Your task to perform on an android device: check google app version Image 0: 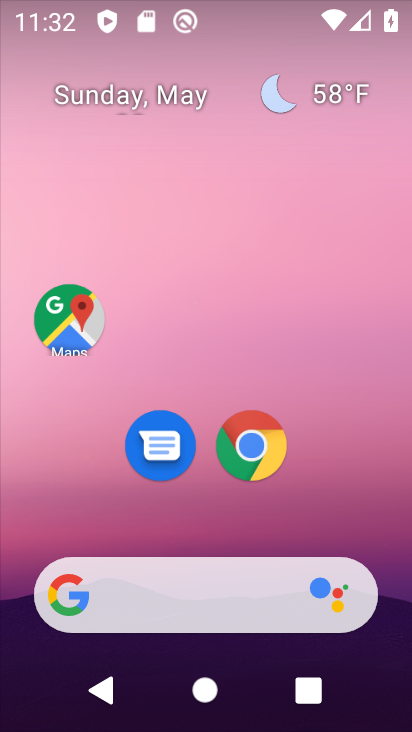
Step 0: drag from (228, 413) to (249, 8)
Your task to perform on an android device: check google app version Image 1: 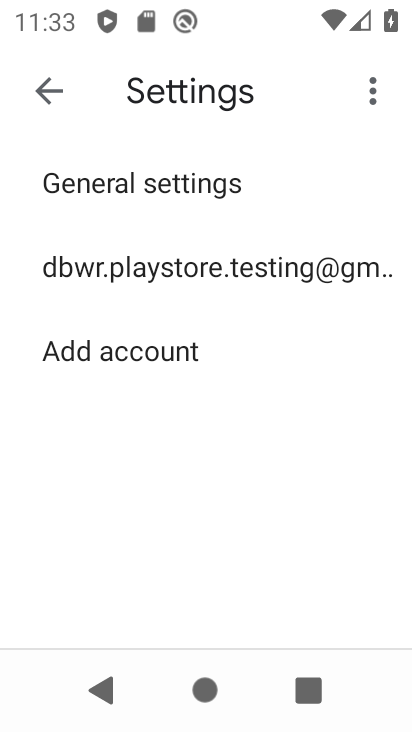
Step 1: press home button
Your task to perform on an android device: check google app version Image 2: 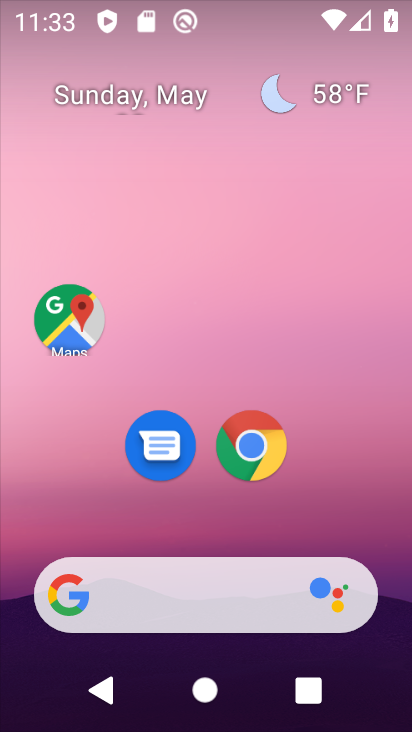
Step 2: drag from (199, 548) to (224, 19)
Your task to perform on an android device: check google app version Image 3: 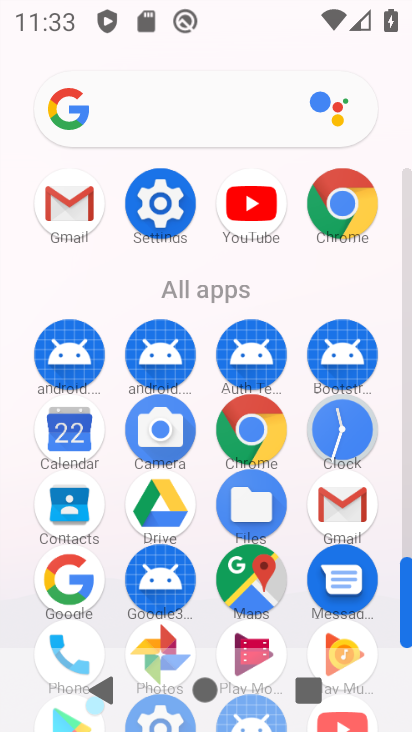
Step 3: drag from (197, 619) to (277, 32)
Your task to perform on an android device: check google app version Image 4: 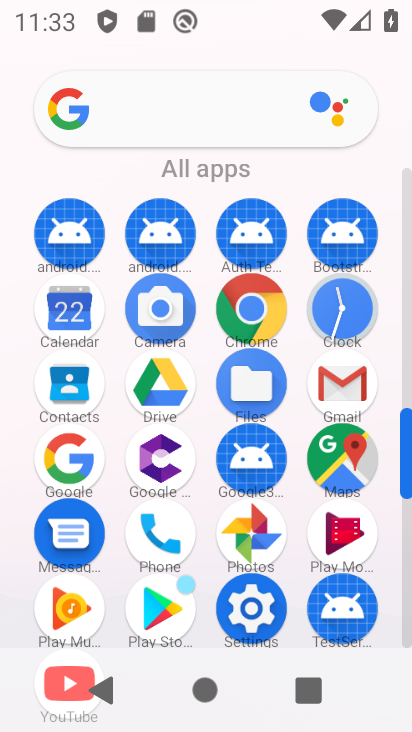
Step 4: click (75, 459)
Your task to perform on an android device: check google app version Image 5: 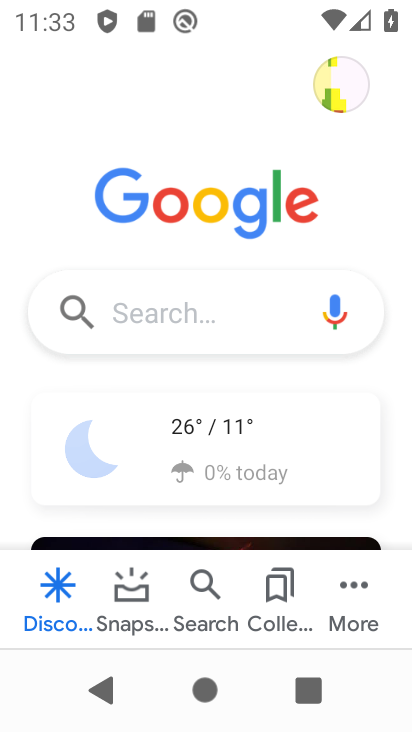
Step 5: click (346, 606)
Your task to perform on an android device: check google app version Image 6: 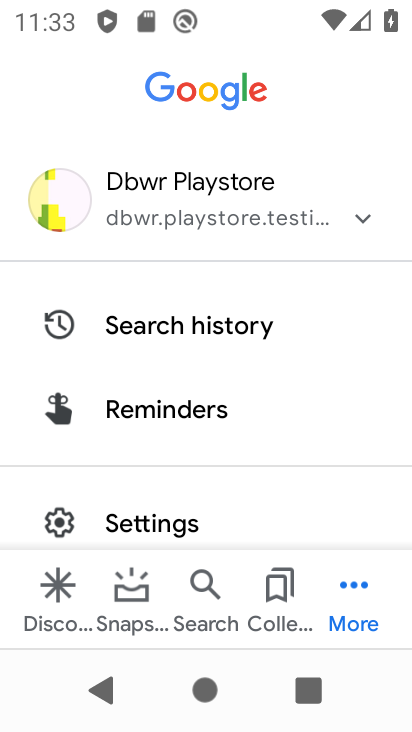
Step 6: click (154, 528)
Your task to perform on an android device: check google app version Image 7: 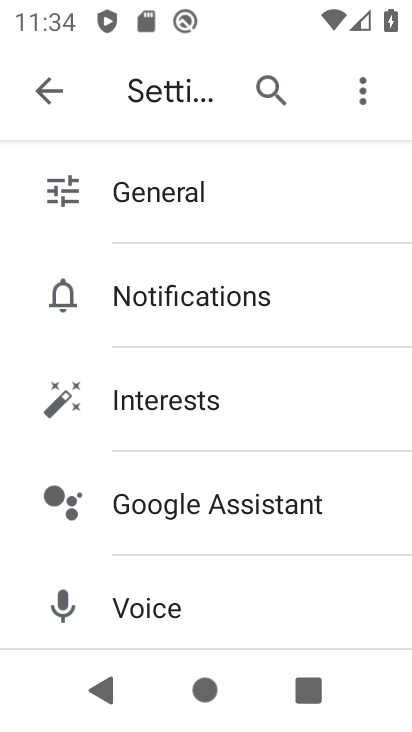
Step 7: drag from (188, 587) to (213, 243)
Your task to perform on an android device: check google app version Image 8: 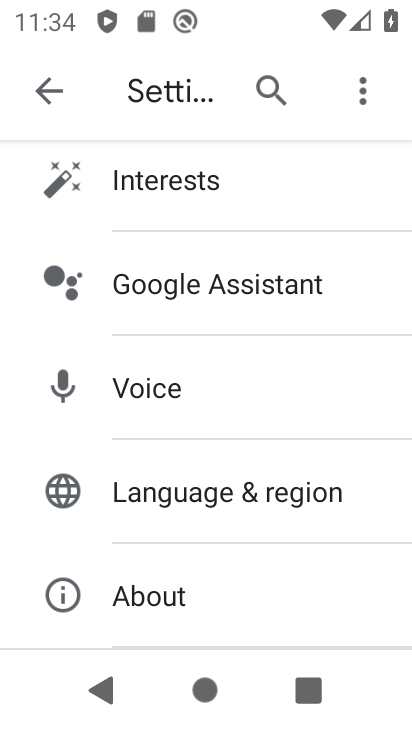
Step 8: click (166, 597)
Your task to perform on an android device: check google app version Image 9: 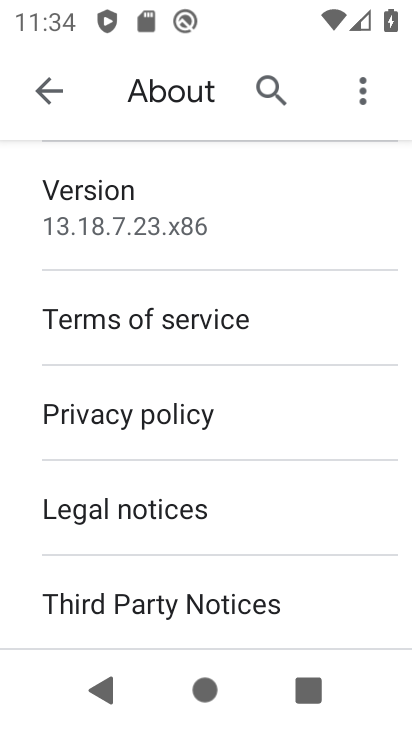
Step 9: task complete